Your task to perform on an android device: visit the assistant section in the google photos Image 0: 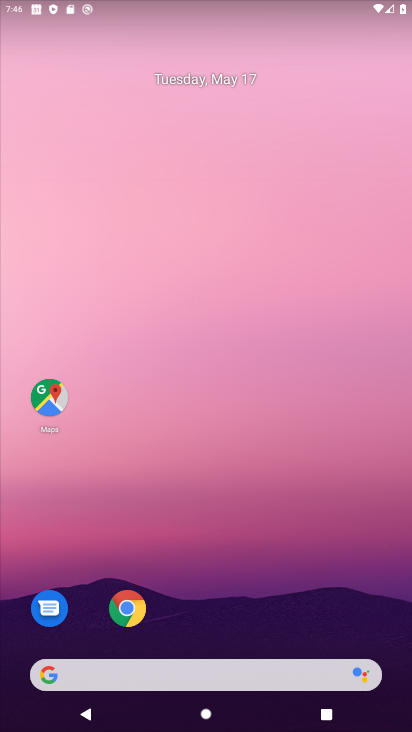
Step 0: drag from (253, 623) to (256, 26)
Your task to perform on an android device: visit the assistant section in the google photos Image 1: 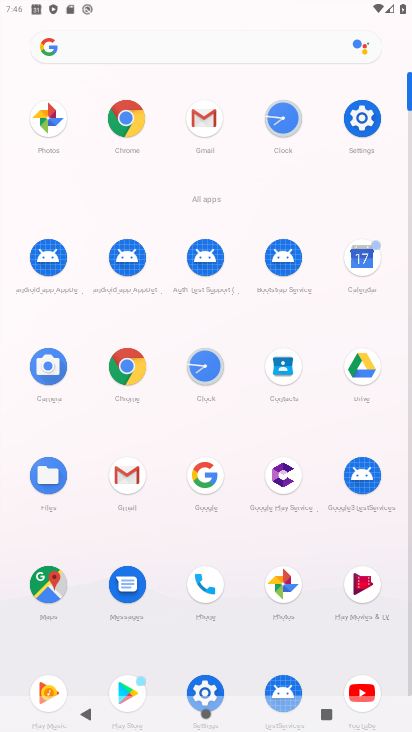
Step 1: click (289, 578)
Your task to perform on an android device: visit the assistant section in the google photos Image 2: 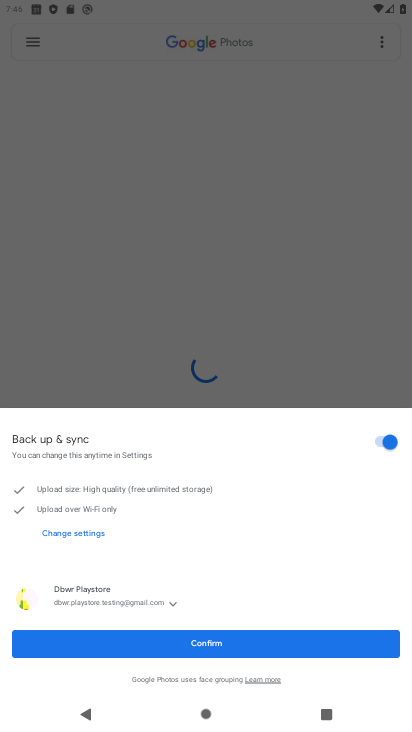
Step 2: click (238, 640)
Your task to perform on an android device: visit the assistant section in the google photos Image 3: 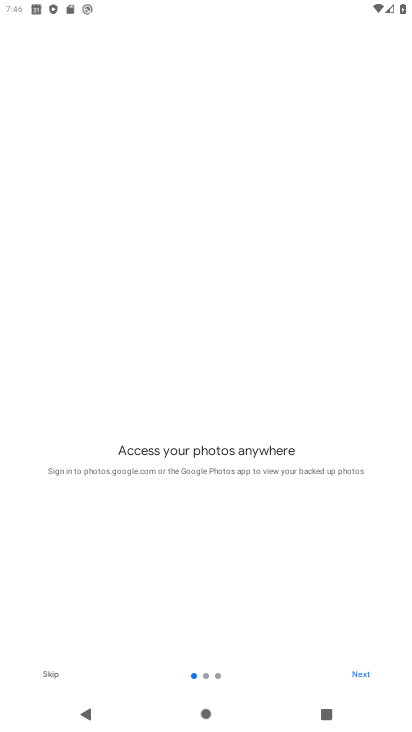
Step 3: click (44, 673)
Your task to perform on an android device: visit the assistant section in the google photos Image 4: 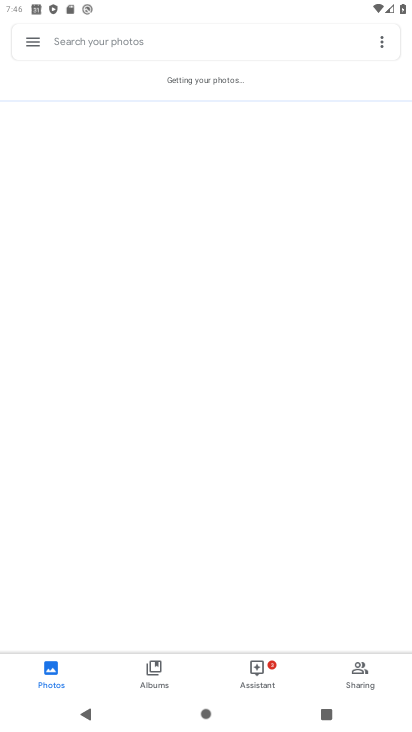
Step 4: click (247, 672)
Your task to perform on an android device: visit the assistant section in the google photos Image 5: 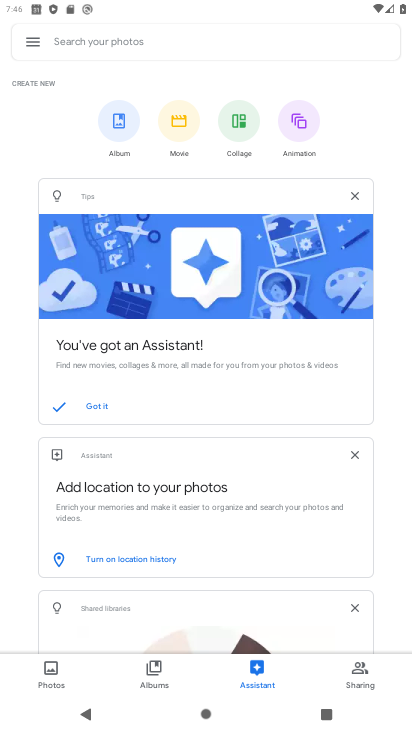
Step 5: task complete